Your task to perform on an android device: Open internet settings Image 0: 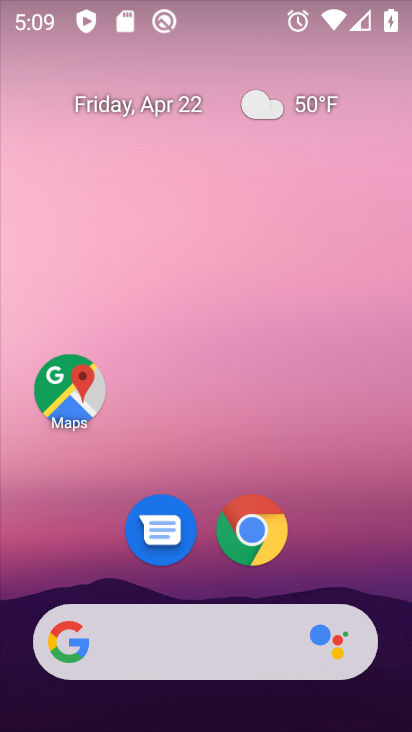
Step 0: drag from (308, 576) to (296, 173)
Your task to perform on an android device: Open internet settings Image 1: 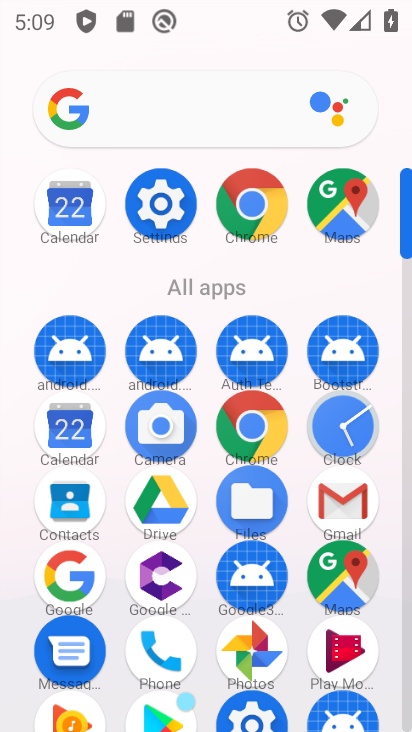
Step 1: drag from (191, 305) to (191, 106)
Your task to perform on an android device: Open internet settings Image 2: 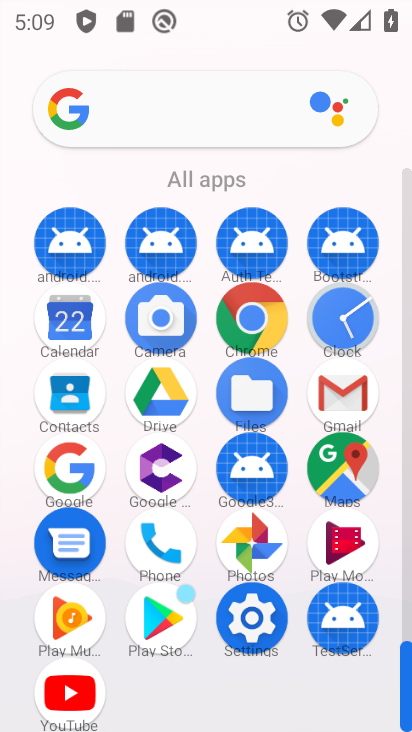
Step 2: click (244, 613)
Your task to perform on an android device: Open internet settings Image 3: 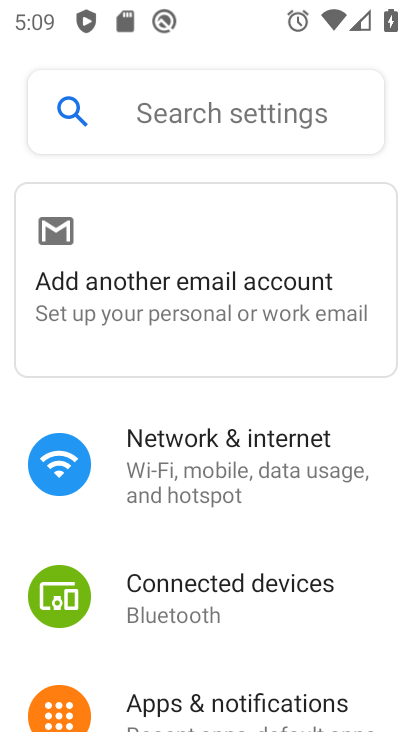
Step 3: click (208, 439)
Your task to perform on an android device: Open internet settings Image 4: 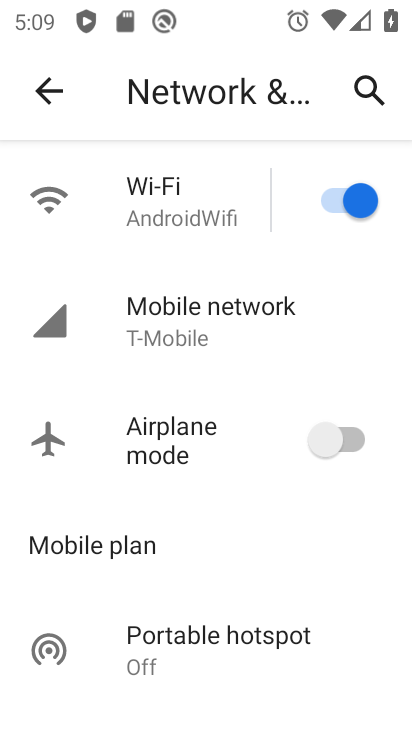
Step 4: task complete